Your task to perform on an android device: Toggle the flashlight Image 0: 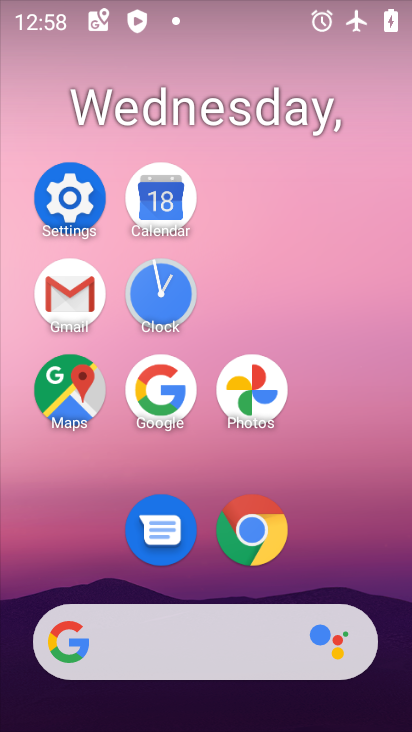
Step 0: drag from (255, 0) to (242, 327)
Your task to perform on an android device: Toggle the flashlight Image 1: 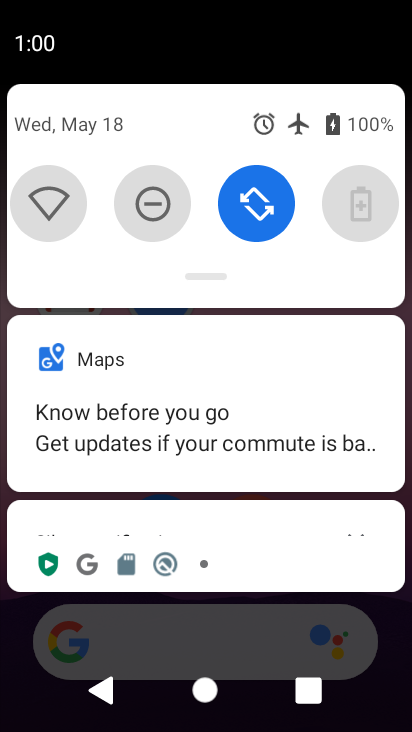
Step 1: task complete